Your task to perform on an android device: toggle notification dots Image 0: 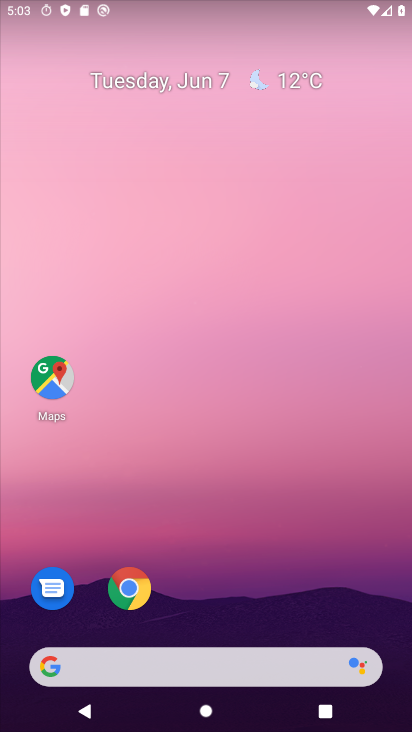
Step 0: drag from (192, 613) to (177, 227)
Your task to perform on an android device: toggle notification dots Image 1: 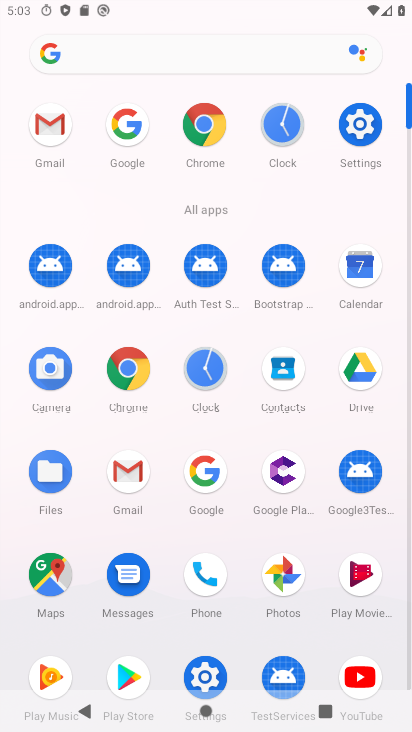
Step 1: click (358, 133)
Your task to perform on an android device: toggle notification dots Image 2: 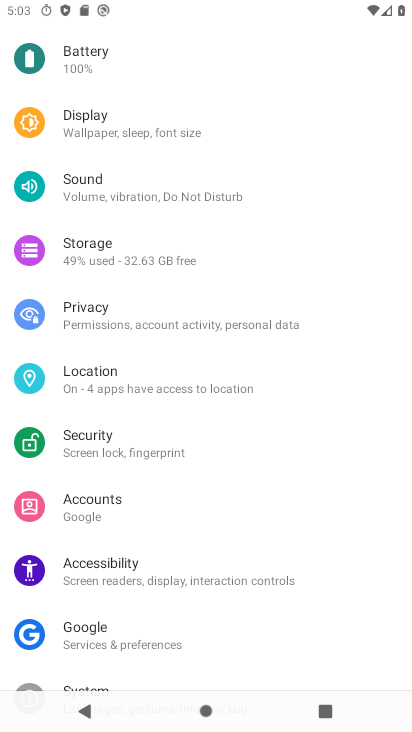
Step 2: drag from (101, 613) to (152, 74)
Your task to perform on an android device: toggle notification dots Image 3: 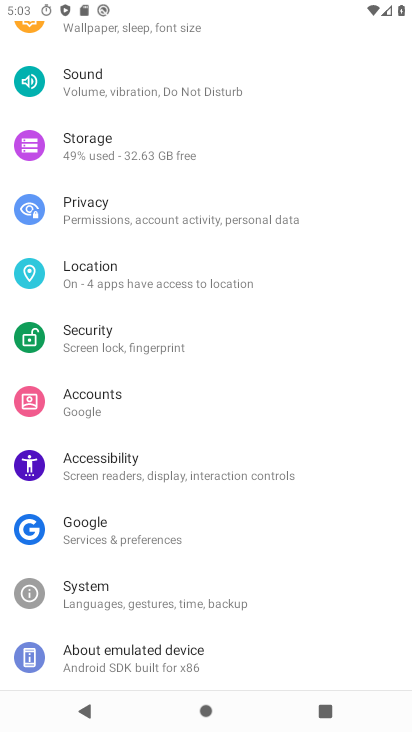
Step 3: drag from (153, 171) to (139, 438)
Your task to perform on an android device: toggle notification dots Image 4: 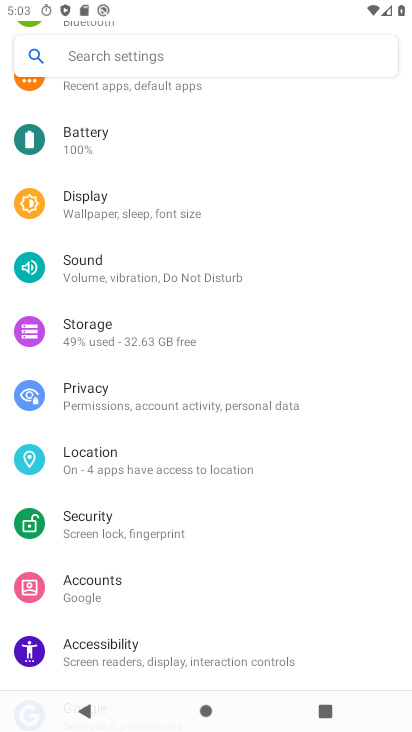
Step 4: drag from (114, 167) to (131, 424)
Your task to perform on an android device: toggle notification dots Image 5: 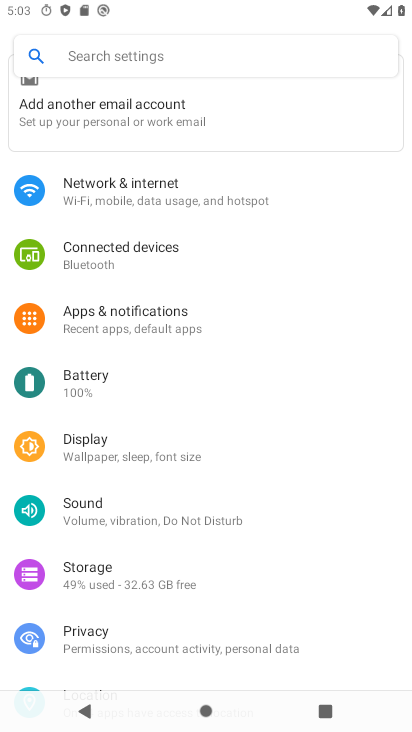
Step 5: click (132, 311)
Your task to perform on an android device: toggle notification dots Image 6: 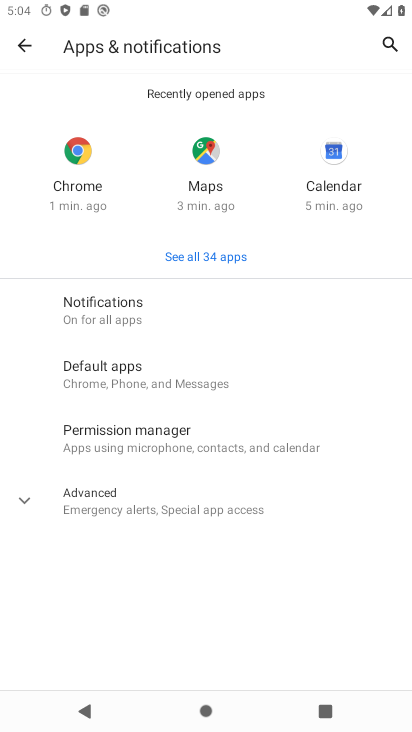
Step 6: click (111, 314)
Your task to perform on an android device: toggle notification dots Image 7: 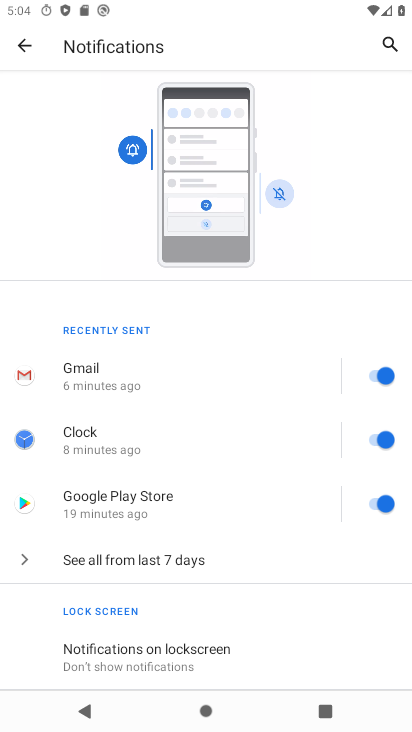
Step 7: drag from (195, 632) to (281, 366)
Your task to perform on an android device: toggle notification dots Image 8: 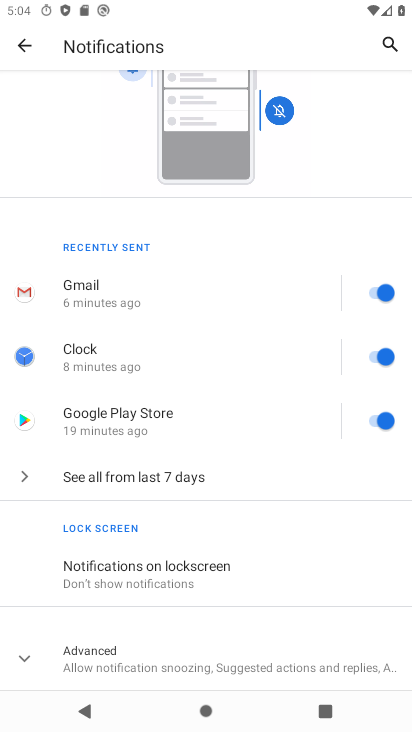
Step 8: drag from (155, 590) to (224, 273)
Your task to perform on an android device: toggle notification dots Image 9: 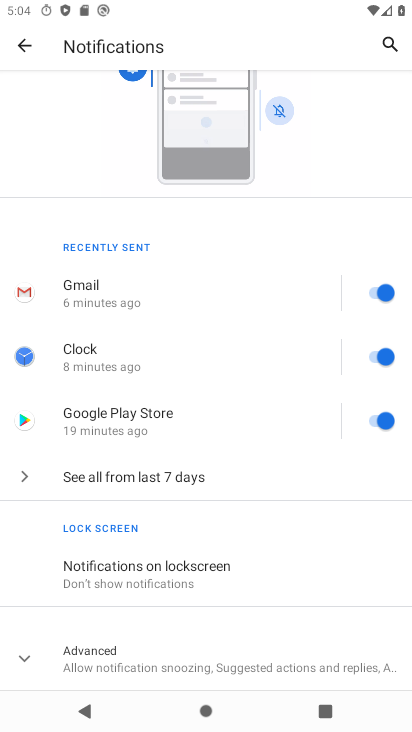
Step 9: click (113, 658)
Your task to perform on an android device: toggle notification dots Image 10: 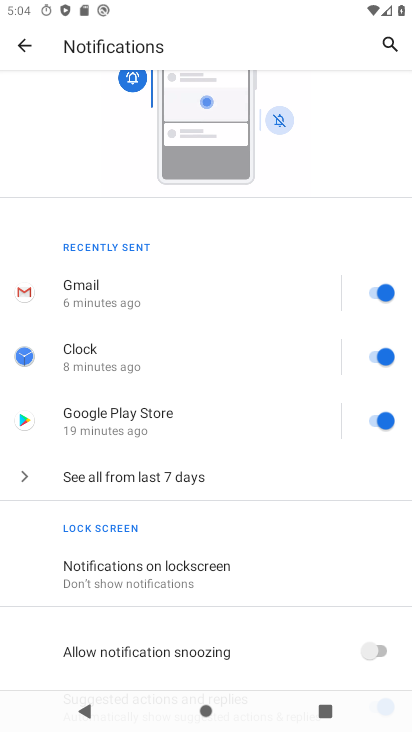
Step 10: drag from (121, 655) to (174, 323)
Your task to perform on an android device: toggle notification dots Image 11: 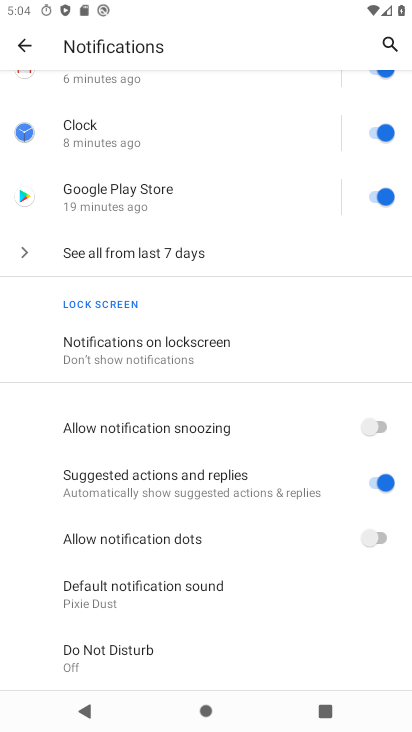
Step 11: click (381, 537)
Your task to perform on an android device: toggle notification dots Image 12: 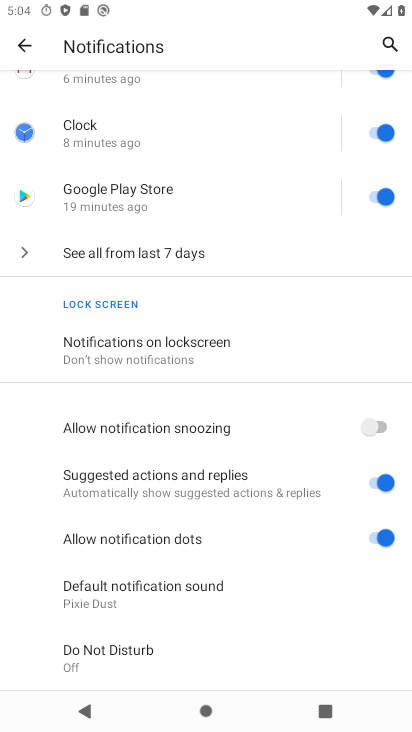
Step 12: task complete